Your task to perform on an android device: Is it going to rain today? Image 0: 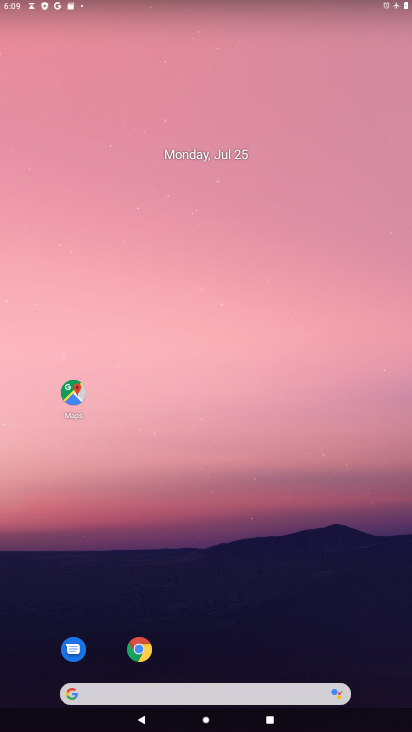
Step 0: drag from (311, 682) to (211, 6)
Your task to perform on an android device: Is it going to rain today? Image 1: 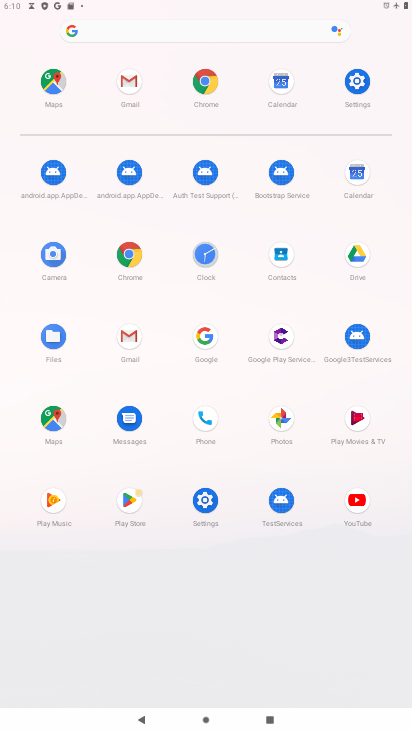
Step 1: click (121, 249)
Your task to perform on an android device: Is it going to rain today? Image 2: 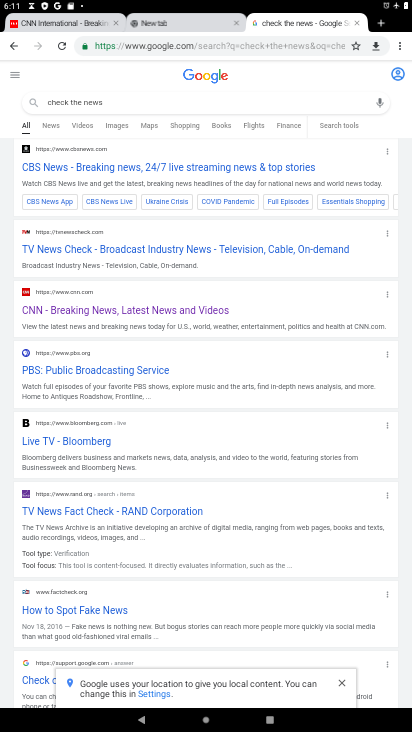
Step 2: click (227, 47)
Your task to perform on an android device: Is it going to rain today? Image 3: 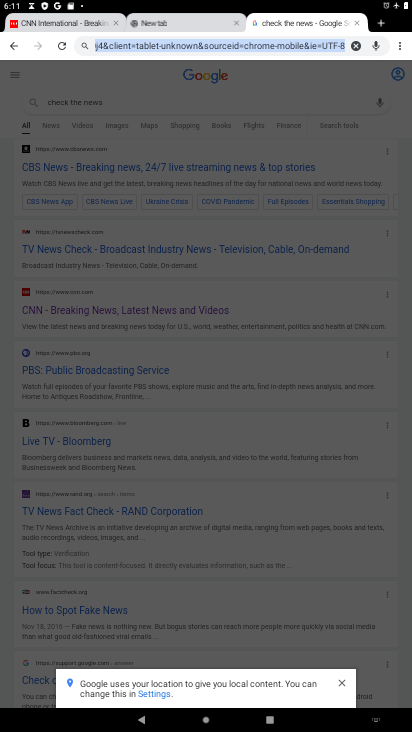
Step 3: type "is it going to rain today"
Your task to perform on an android device: Is it going to rain today? Image 4: 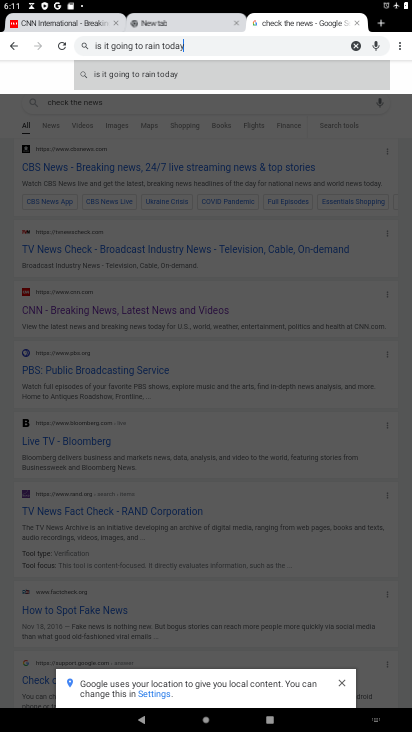
Step 4: click (133, 73)
Your task to perform on an android device: Is it going to rain today? Image 5: 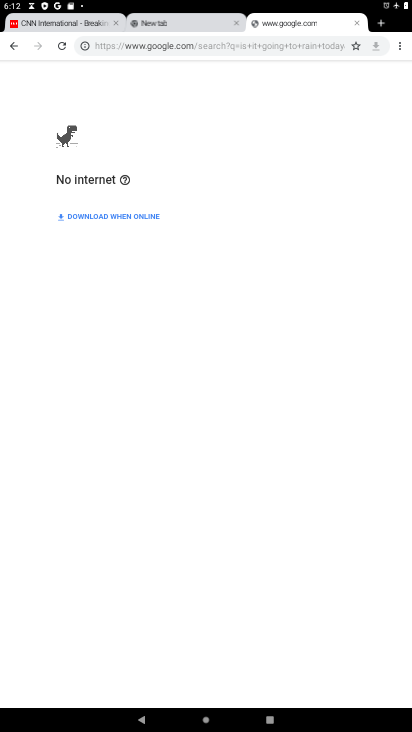
Step 5: task complete